Your task to perform on an android device: Search for sushi restaurants on Maps Image 0: 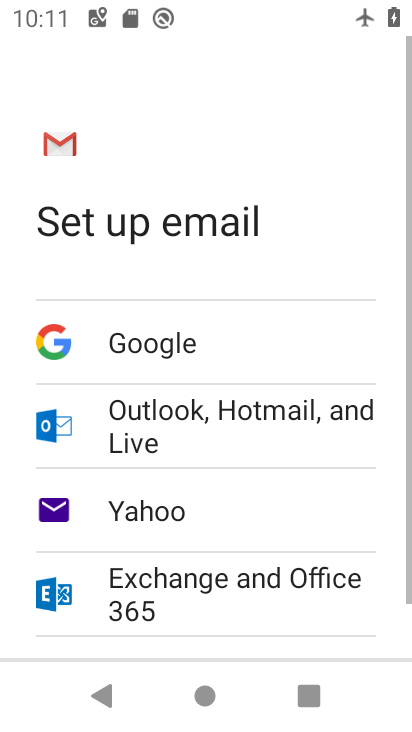
Step 0: press home button
Your task to perform on an android device: Search for sushi restaurants on Maps Image 1: 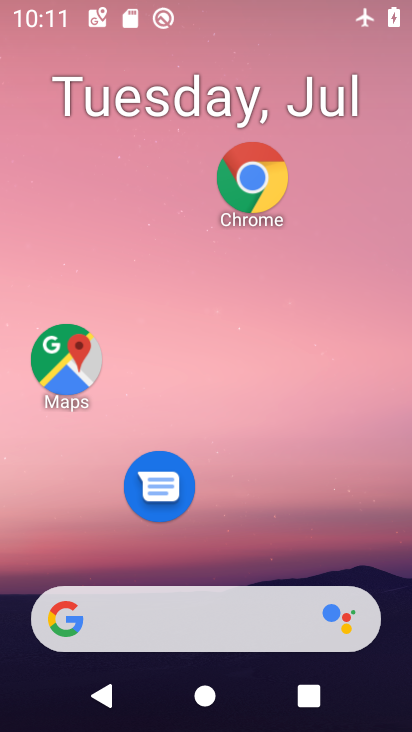
Step 1: drag from (251, 566) to (301, 104)
Your task to perform on an android device: Search for sushi restaurants on Maps Image 2: 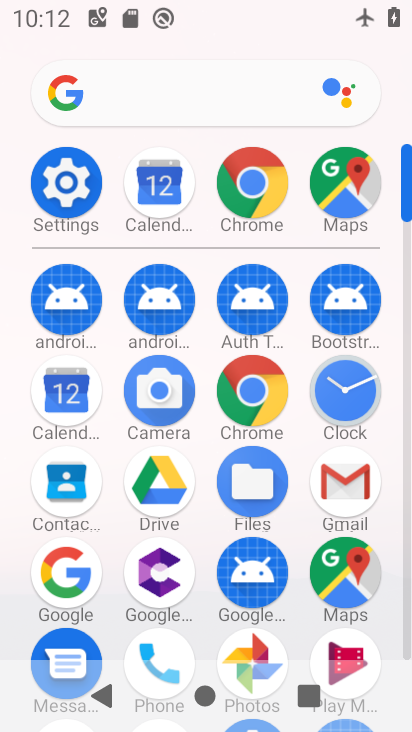
Step 2: click (341, 213)
Your task to perform on an android device: Search for sushi restaurants on Maps Image 3: 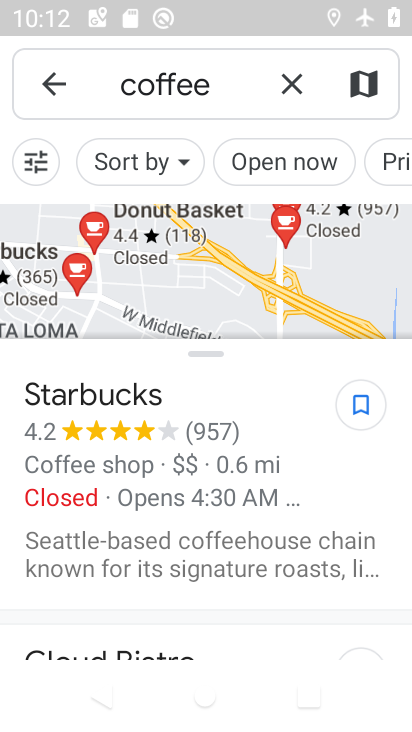
Step 3: click (303, 93)
Your task to perform on an android device: Search for sushi restaurants on Maps Image 4: 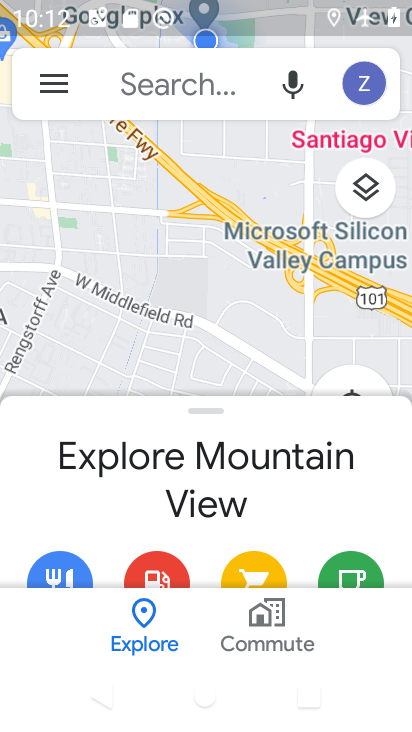
Step 4: click (205, 89)
Your task to perform on an android device: Search for sushi restaurants on Maps Image 5: 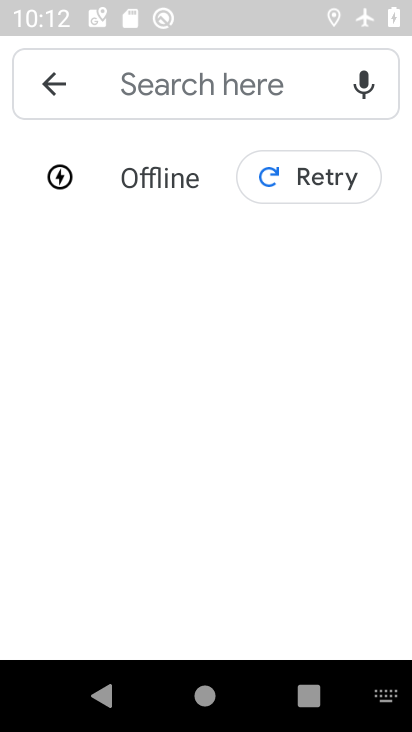
Step 5: task complete